Your task to perform on an android device: Open ESPN.com Image 0: 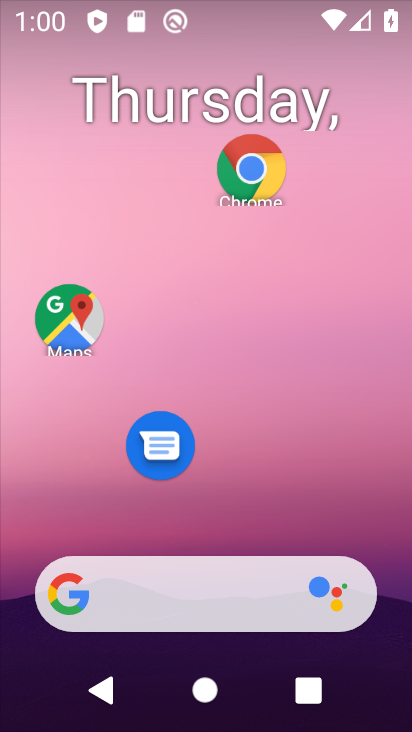
Step 0: drag from (294, 644) to (321, 244)
Your task to perform on an android device: Open ESPN.com Image 1: 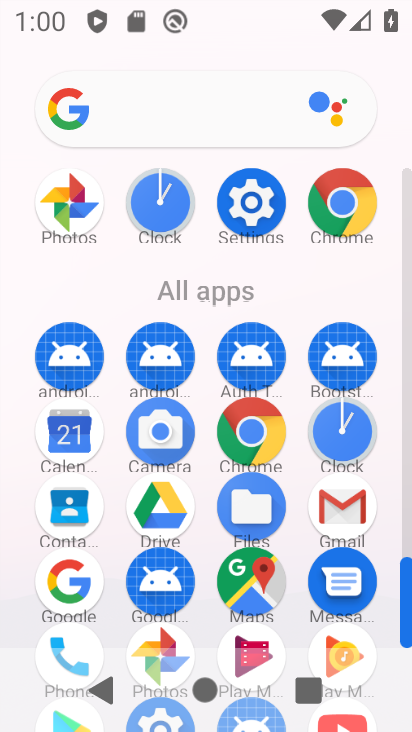
Step 1: click (332, 203)
Your task to perform on an android device: Open ESPN.com Image 2: 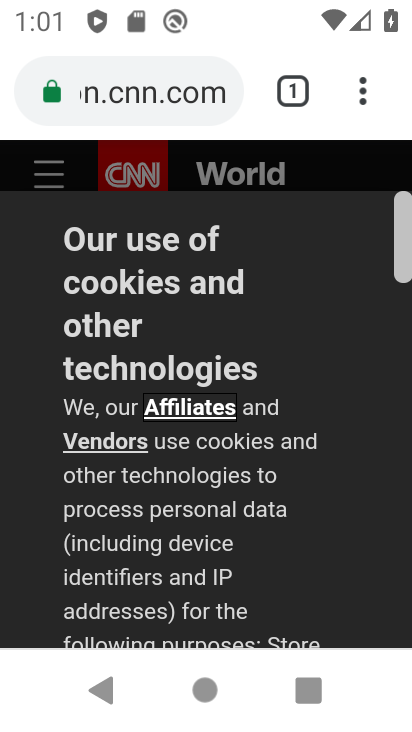
Step 2: click (295, 92)
Your task to perform on an android device: Open ESPN.com Image 3: 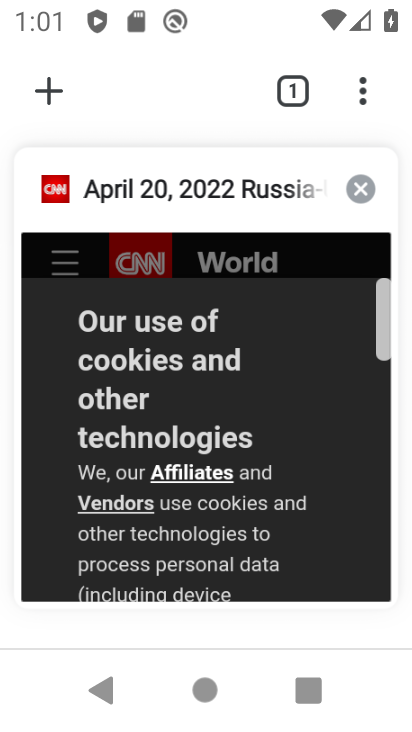
Step 3: click (52, 94)
Your task to perform on an android device: Open ESPN.com Image 4: 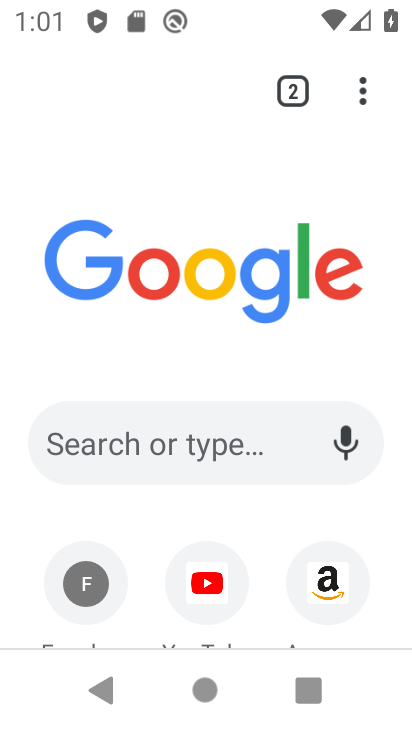
Step 4: drag from (204, 499) to (211, 233)
Your task to perform on an android device: Open ESPN.com Image 5: 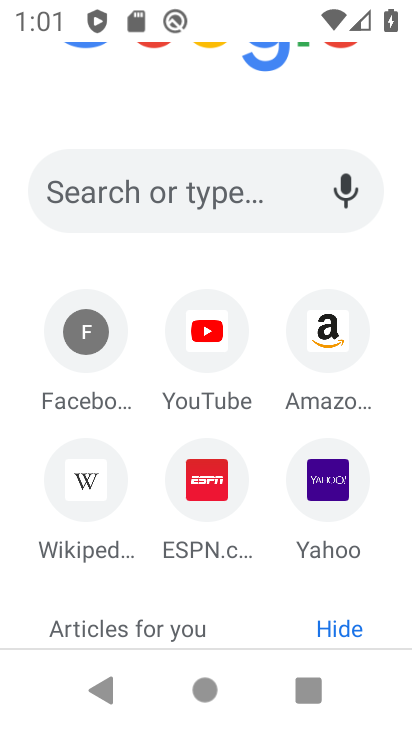
Step 5: click (213, 482)
Your task to perform on an android device: Open ESPN.com Image 6: 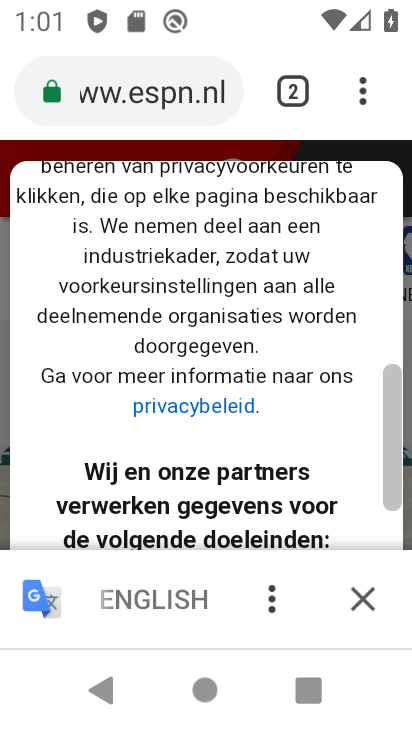
Step 6: task complete